Your task to perform on an android device: Open the map Image 0: 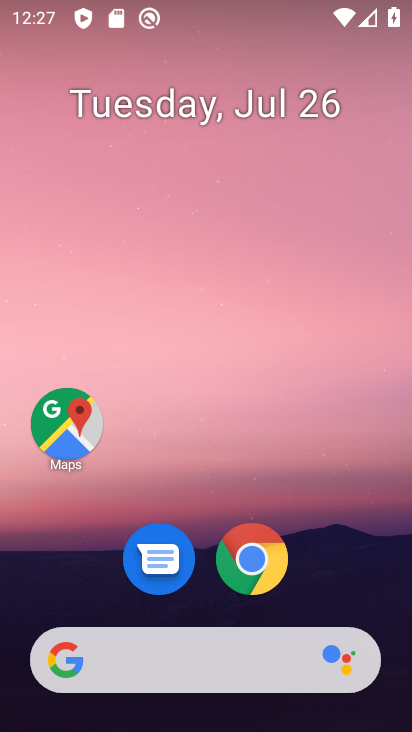
Step 0: click (64, 443)
Your task to perform on an android device: Open the map Image 1: 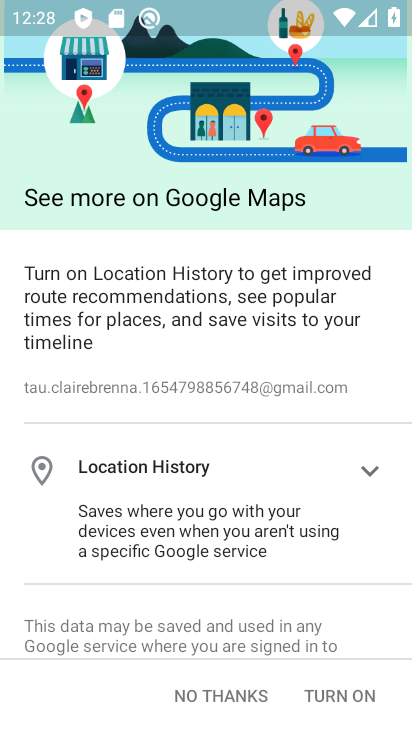
Step 1: task complete